Your task to perform on an android device: turn on bluetooth scan Image 0: 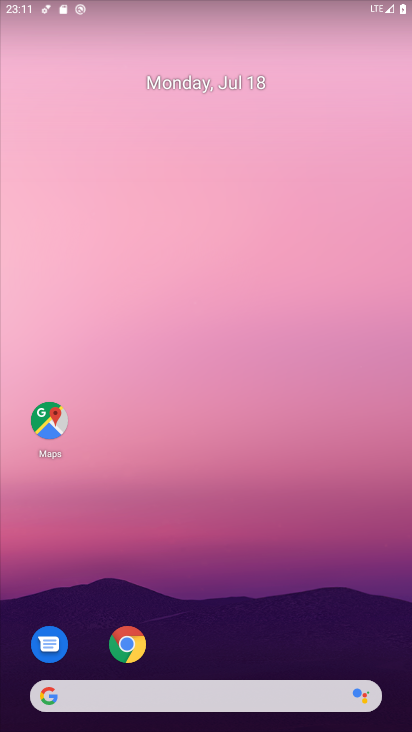
Step 0: drag from (333, 626) to (344, 167)
Your task to perform on an android device: turn on bluetooth scan Image 1: 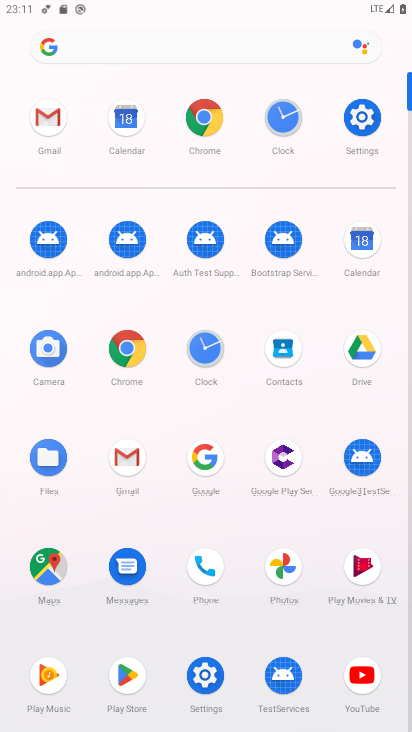
Step 1: click (368, 127)
Your task to perform on an android device: turn on bluetooth scan Image 2: 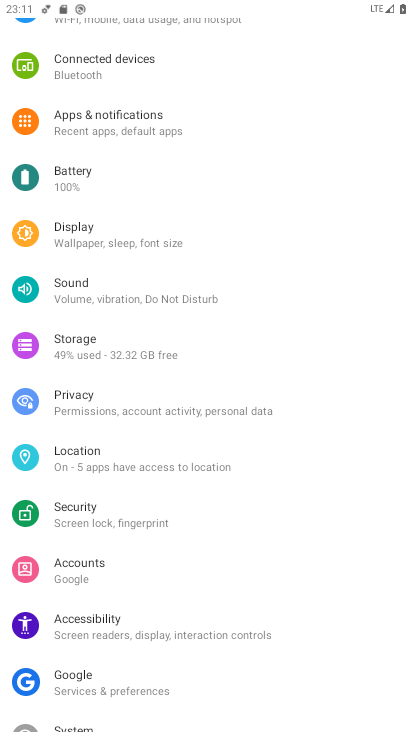
Step 2: drag from (342, 569) to (331, 434)
Your task to perform on an android device: turn on bluetooth scan Image 3: 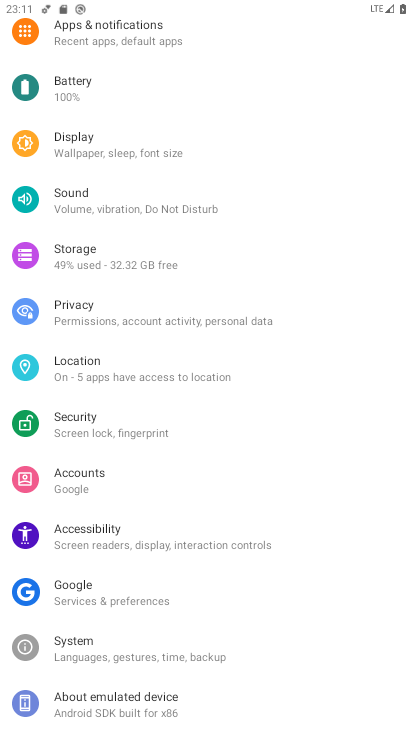
Step 3: drag from (330, 545) to (327, 378)
Your task to perform on an android device: turn on bluetooth scan Image 4: 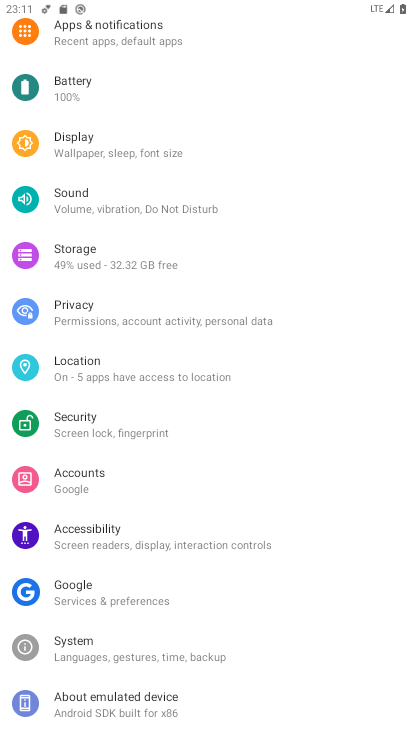
Step 4: drag from (330, 238) to (329, 403)
Your task to perform on an android device: turn on bluetooth scan Image 5: 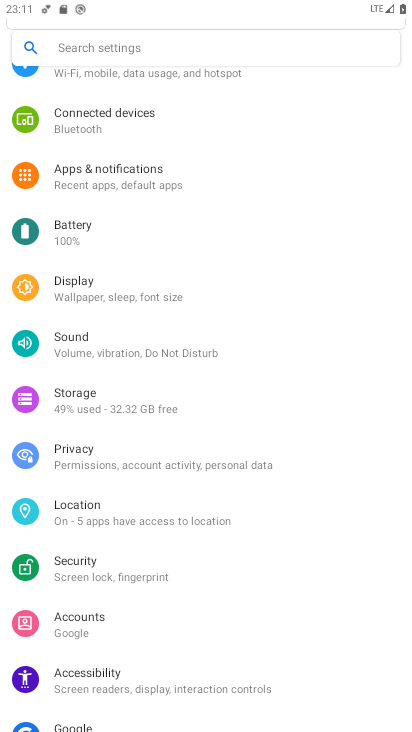
Step 5: drag from (298, 230) to (309, 391)
Your task to perform on an android device: turn on bluetooth scan Image 6: 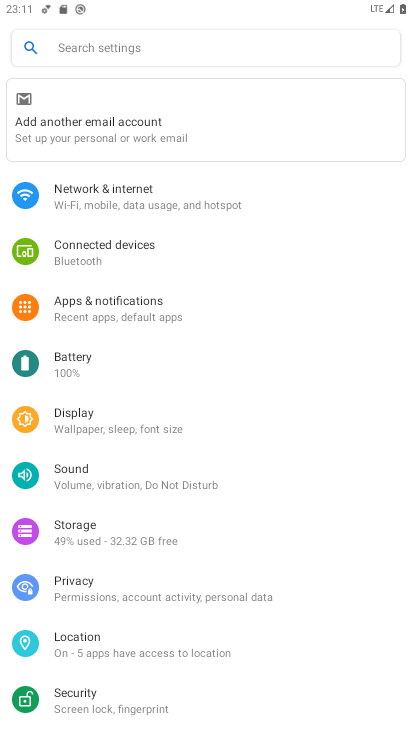
Step 6: drag from (285, 260) to (297, 389)
Your task to perform on an android device: turn on bluetooth scan Image 7: 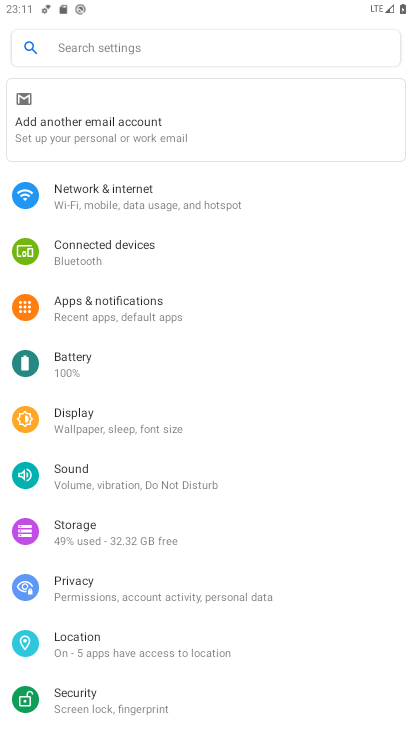
Step 7: drag from (274, 466) to (285, 348)
Your task to perform on an android device: turn on bluetooth scan Image 8: 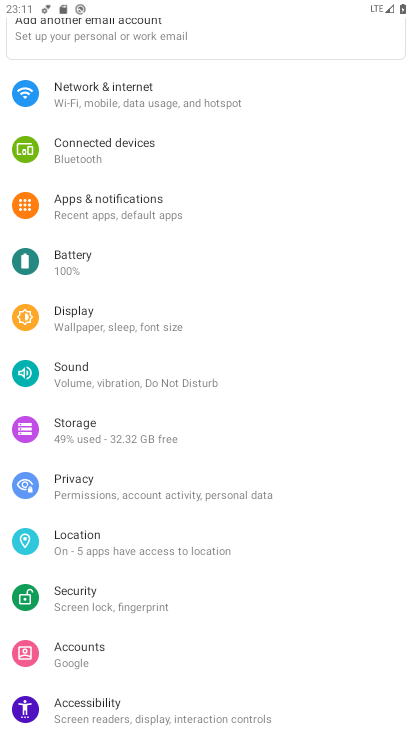
Step 8: drag from (328, 475) to (309, 350)
Your task to perform on an android device: turn on bluetooth scan Image 9: 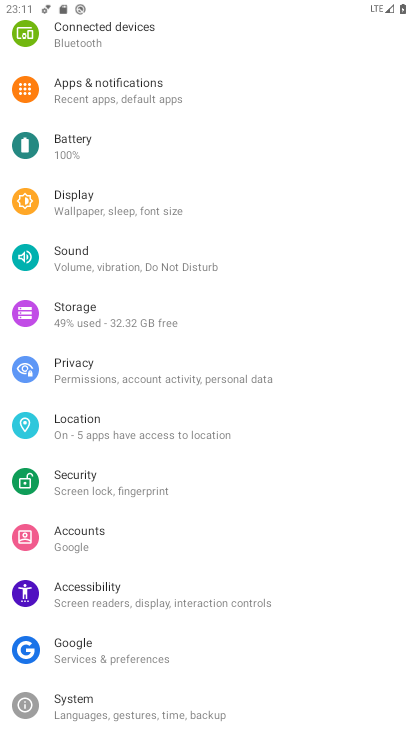
Step 9: drag from (309, 251) to (305, 353)
Your task to perform on an android device: turn on bluetooth scan Image 10: 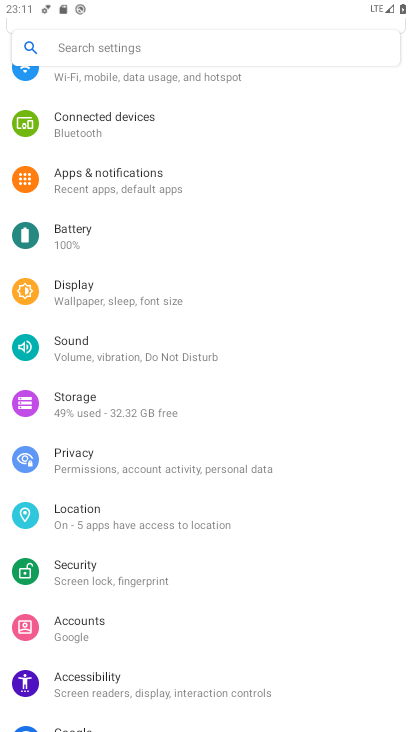
Step 10: click (240, 522)
Your task to perform on an android device: turn on bluetooth scan Image 11: 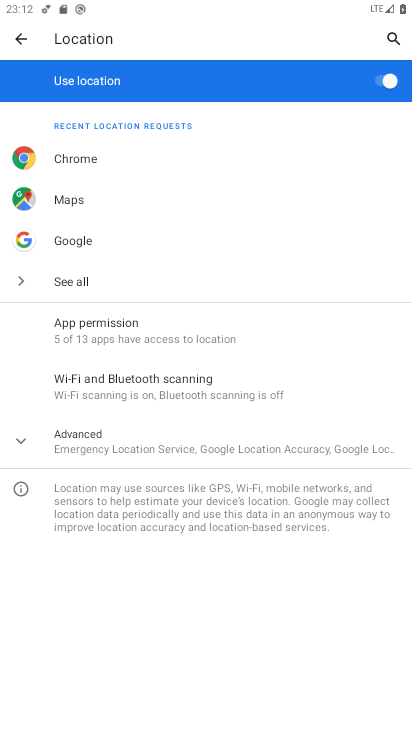
Step 11: click (221, 385)
Your task to perform on an android device: turn on bluetooth scan Image 12: 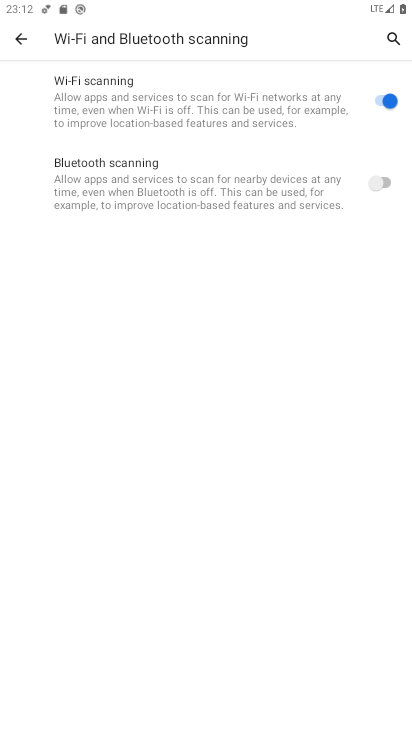
Step 12: click (378, 186)
Your task to perform on an android device: turn on bluetooth scan Image 13: 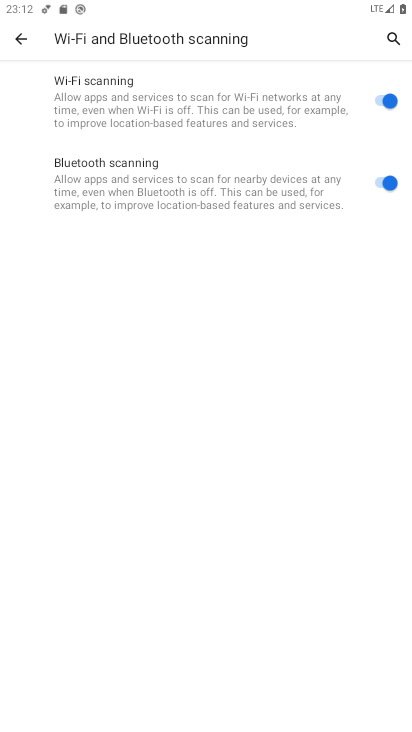
Step 13: task complete